Your task to perform on an android device: turn on priority inbox in the gmail app Image 0: 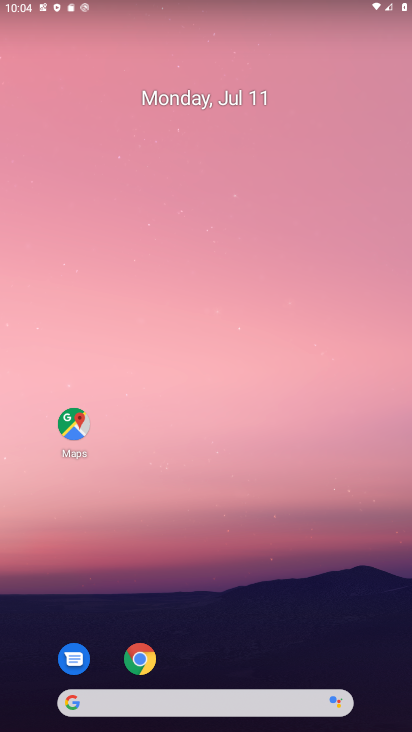
Step 0: drag from (224, 730) to (222, 292)
Your task to perform on an android device: turn on priority inbox in the gmail app Image 1: 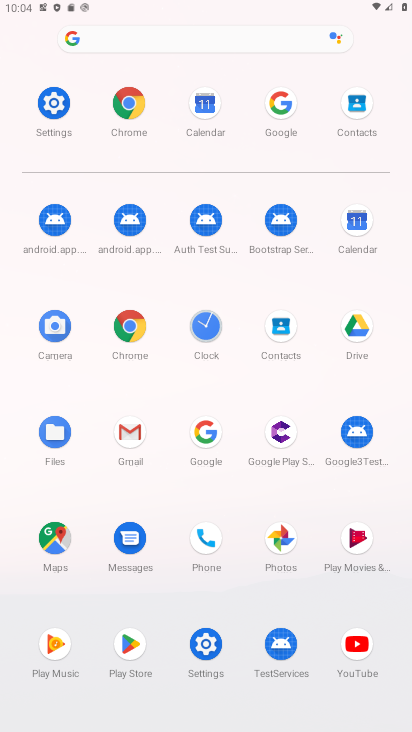
Step 1: click (127, 438)
Your task to perform on an android device: turn on priority inbox in the gmail app Image 2: 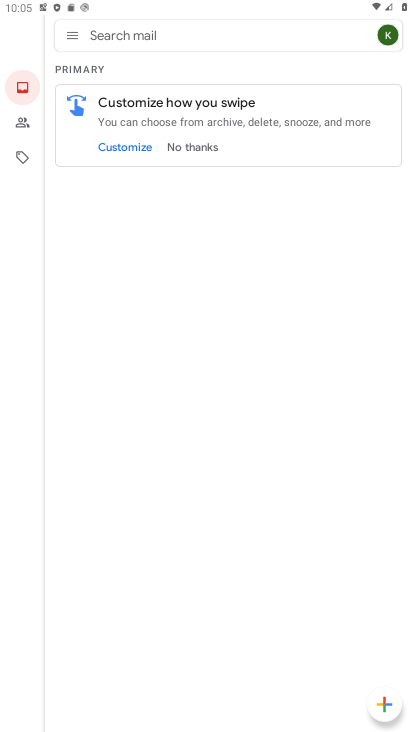
Step 2: click (77, 31)
Your task to perform on an android device: turn on priority inbox in the gmail app Image 3: 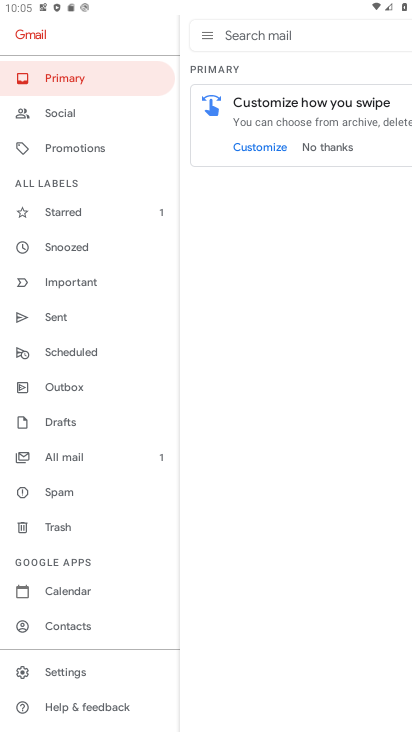
Step 3: click (70, 668)
Your task to perform on an android device: turn on priority inbox in the gmail app Image 4: 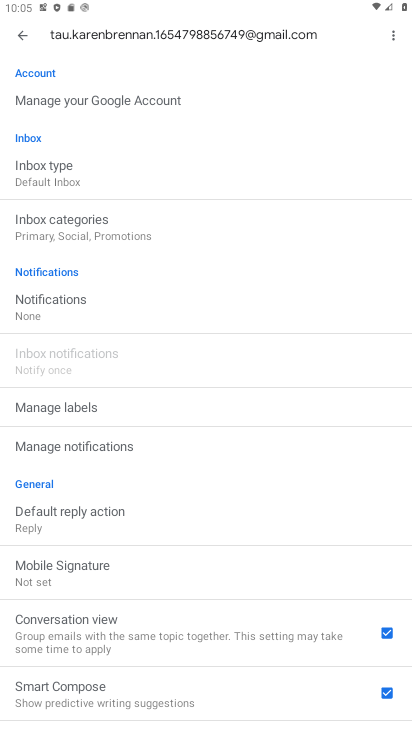
Step 4: click (65, 667)
Your task to perform on an android device: turn on priority inbox in the gmail app Image 5: 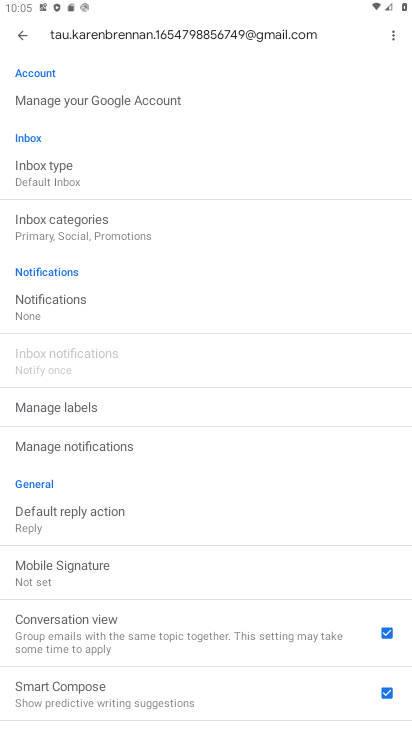
Step 5: click (46, 177)
Your task to perform on an android device: turn on priority inbox in the gmail app Image 6: 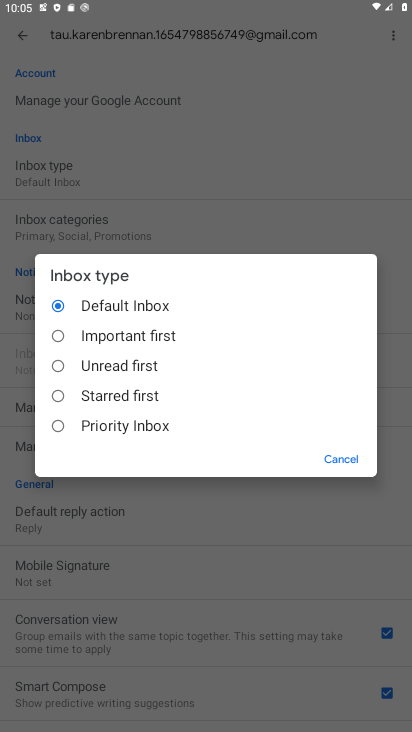
Step 6: click (57, 424)
Your task to perform on an android device: turn on priority inbox in the gmail app Image 7: 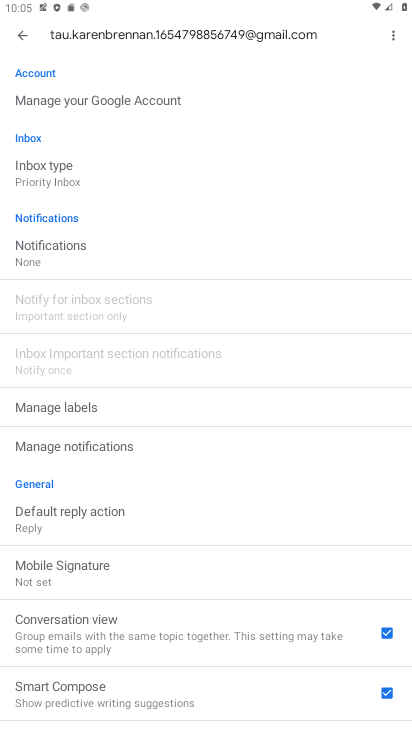
Step 7: task complete